Your task to perform on an android device: Go to wifi settings Image 0: 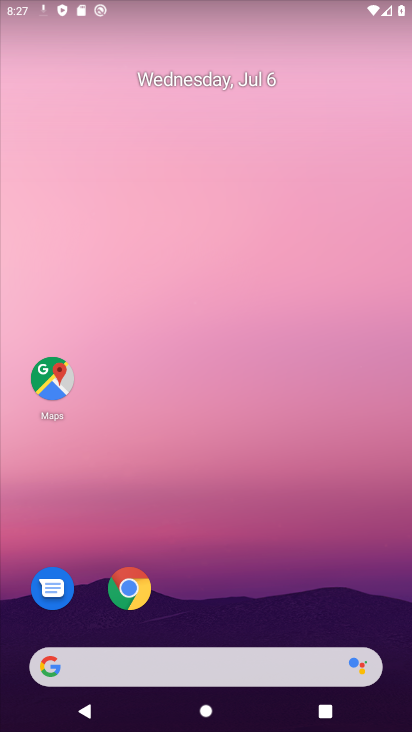
Step 0: drag from (187, 565) to (305, 52)
Your task to perform on an android device: Go to wifi settings Image 1: 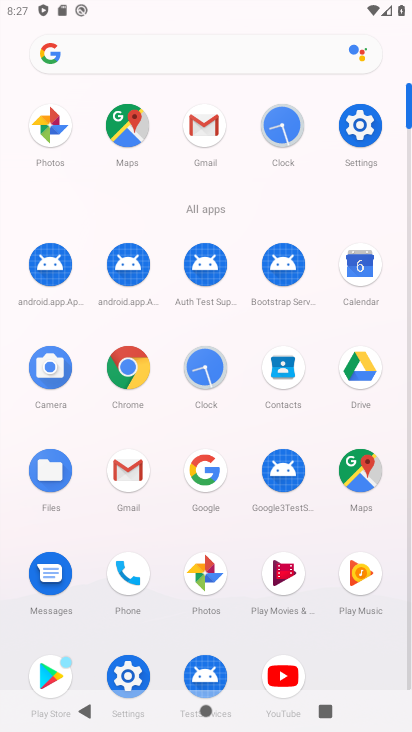
Step 1: click (362, 126)
Your task to perform on an android device: Go to wifi settings Image 2: 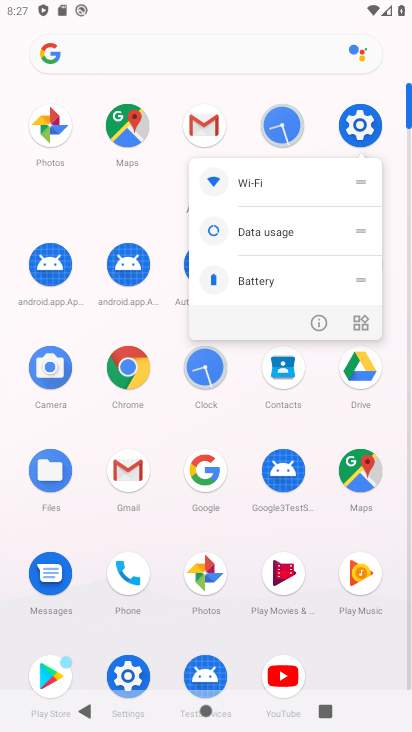
Step 2: click (255, 188)
Your task to perform on an android device: Go to wifi settings Image 3: 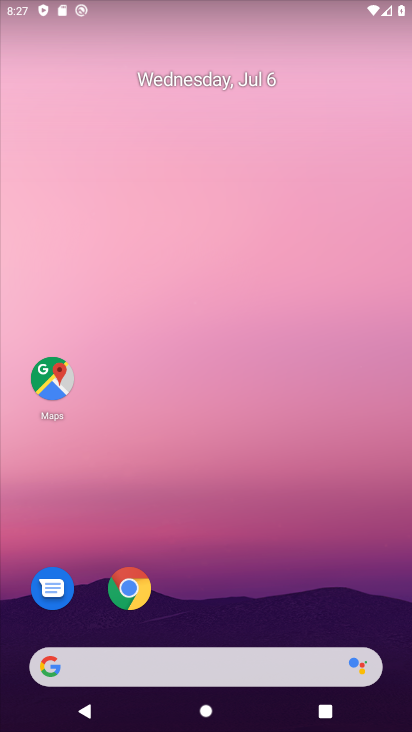
Step 3: drag from (205, 609) to (213, 130)
Your task to perform on an android device: Go to wifi settings Image 4: 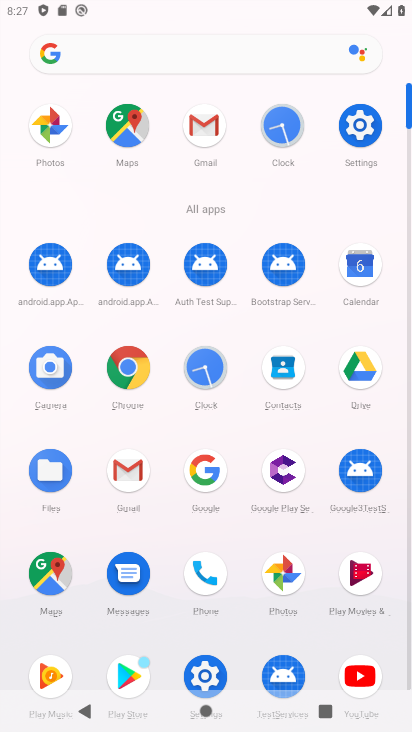
Step 4: click (364, 120)
Your task to perform on an android device: Go to wifi settings Image 5: 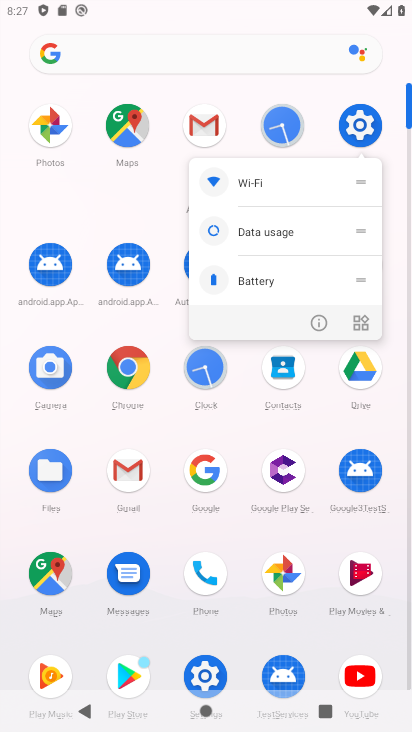
Step 5: click (265, 195)
Your task to perform on an android device: Go to wifi settings Image 6: 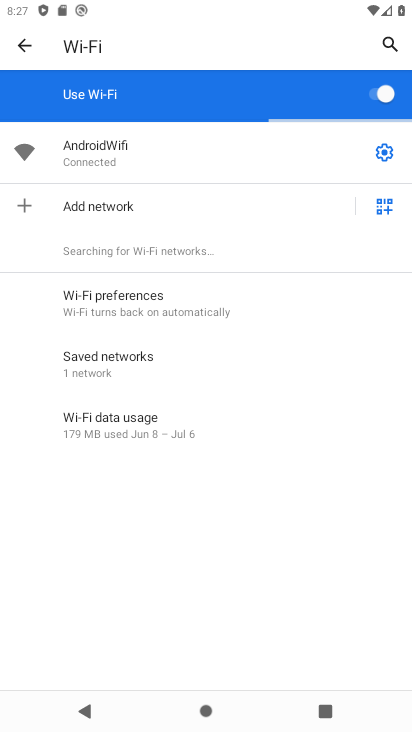
Step 6: click (382, 153)
Your task to perform on an android device: Go to wifi settings Image 7: 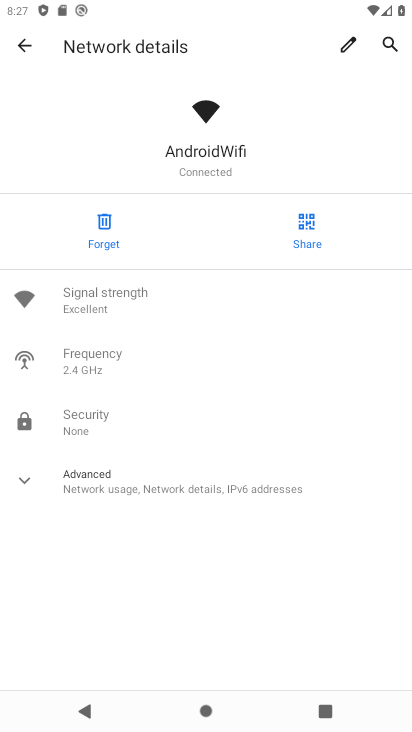
Step 7: task complete